Your task to perform on an android device: change the clock style Image 0: 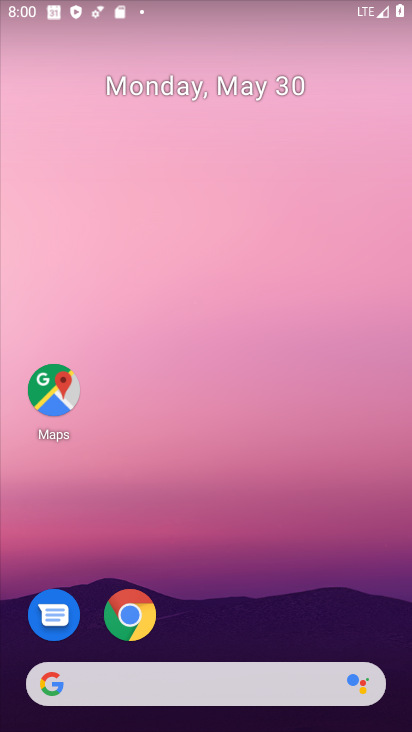
Step 0: drag from (236, 728) to (195, 71)
Your task to perform on an android device: change the clock style Image 1: 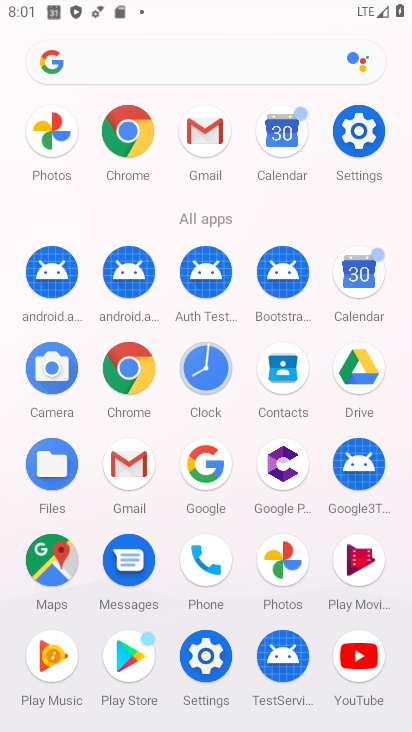
Step 1: click (175, 367)
Your task to perform on an android device: change the clock style Image 2: 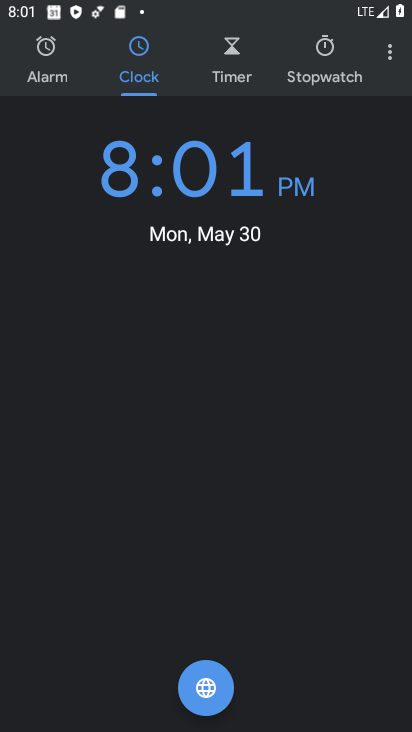
Step 2: click (385, 59)
Your task to perform on an android device: change the clock style Image 3: 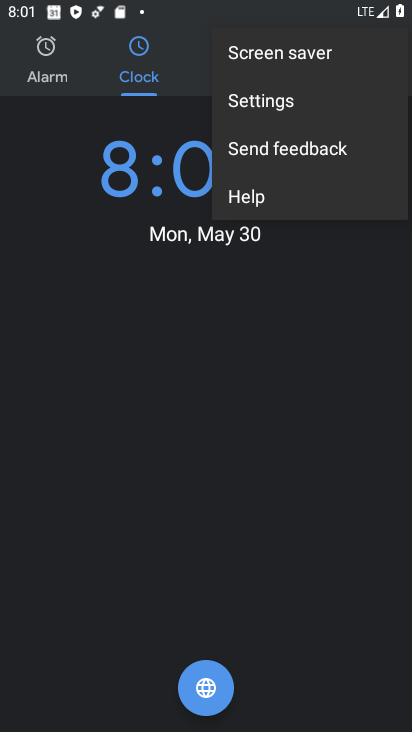
Step 3: click (261, 107)
Your task to perform on an android device: change the clock style Image 4: 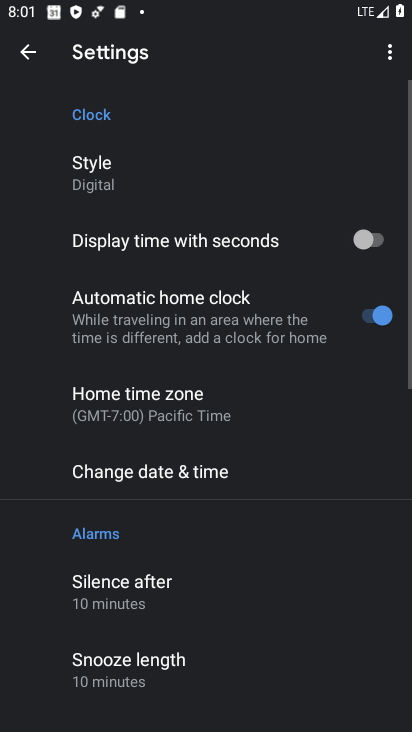
Step 4: click (96, 177)
Your task to perform on an android device: change the clock style Image 5: 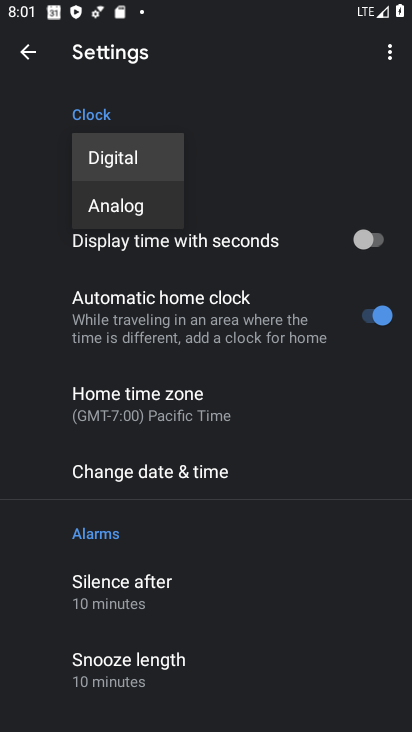
Step 5: click (121, 221)
Your task to perform on an android device: change the clock style Image 6: 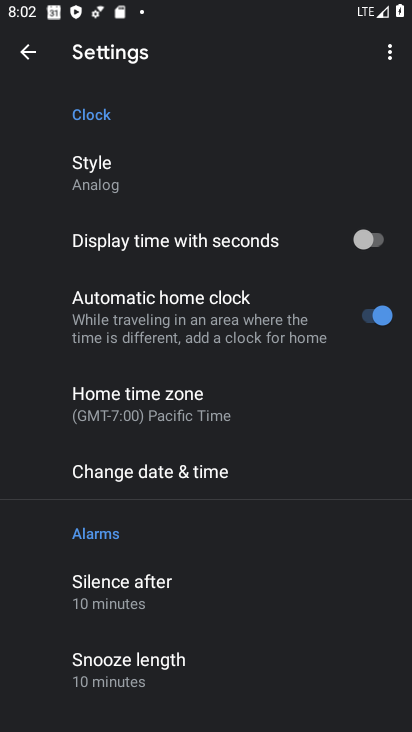
Step 6: task complete